Your task to perform on an android device: Open ESPN.com Image 0: 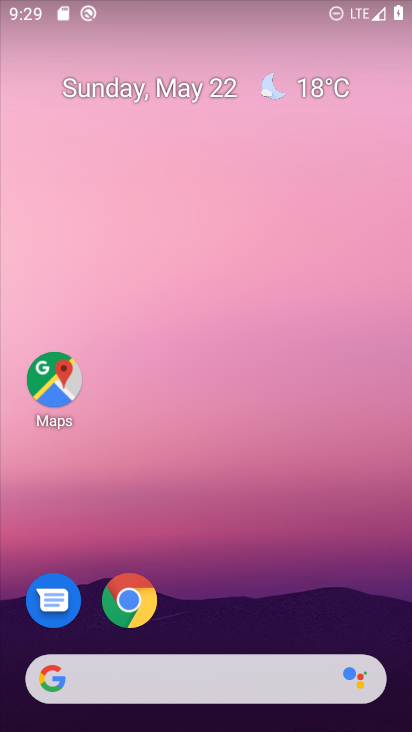
Step 0: drag from (372, 616) to (230, 37)
Your task to perform on an android device: Open ESPN.com Image 1: 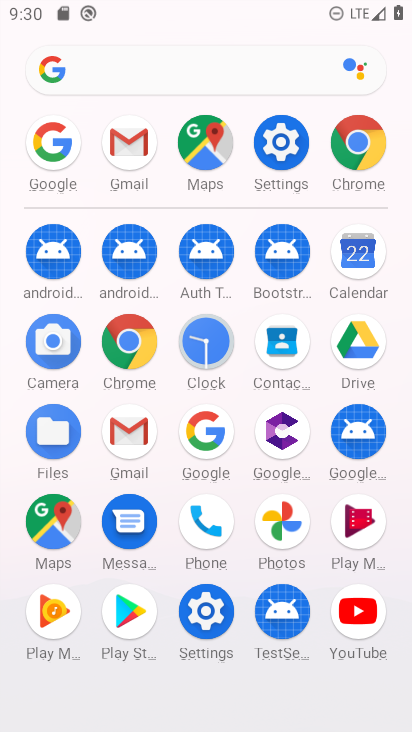
Step 1: click (46, 151)
Your task to perform on an android device: Open ESPN.com Image 2: 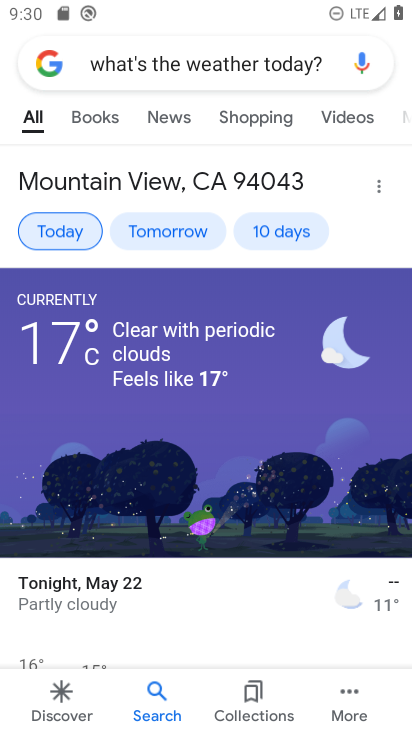
Step 2: press back button
Your task to perform on an android device: Open ESPN.com Image 3: 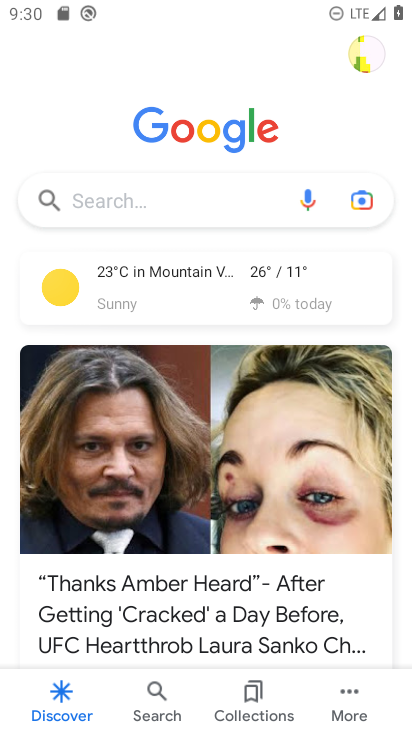
Step 3: click (133, 194)
Your task to perform on an android device: Open ESPN.com Image 4: 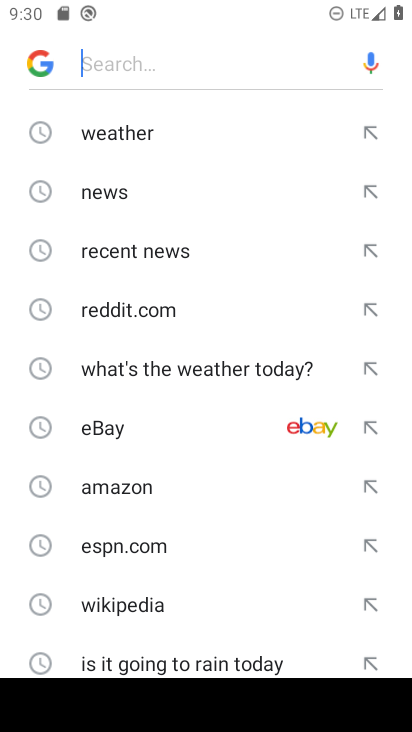
Step 4: click (121, 536)
Your task to perform on an android device: Open ESPN.com Image 5: 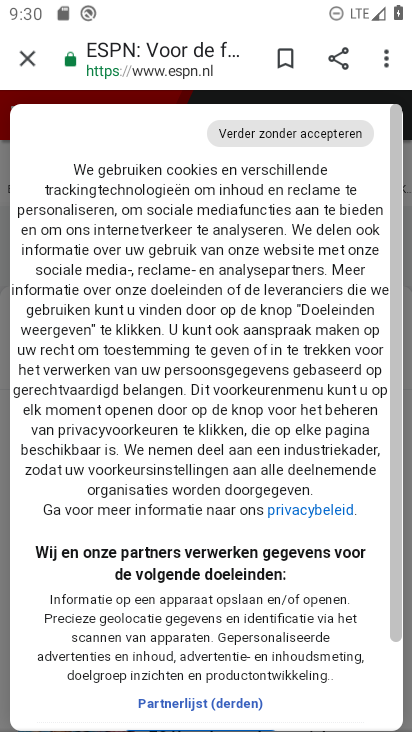
Step 5: task complete